Your task to perform on an android device: turn notification dots off Image 0: 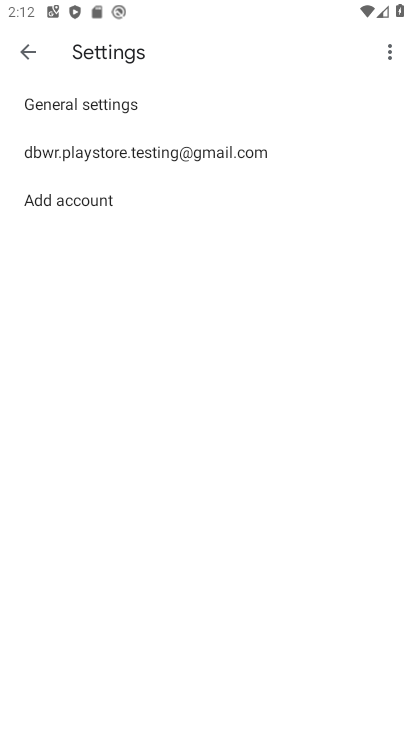
Step 0: press home button
Your task to perform on an android device: turn notification dots off Image 1: 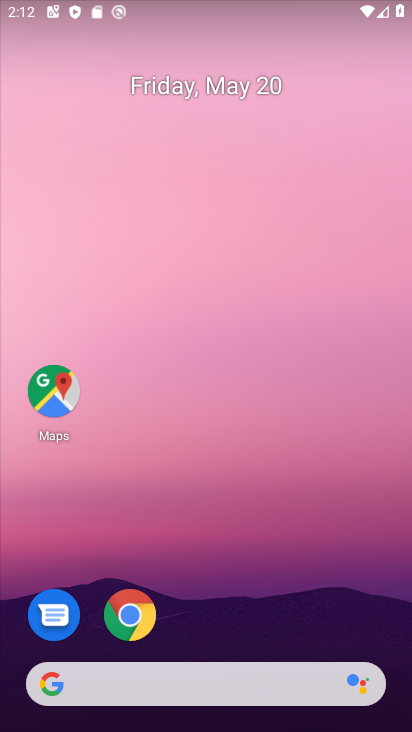
Step 1: drag from (263, 591) to (303, 283)
Your task to perform on an android device: turn notification dots off Image 2: 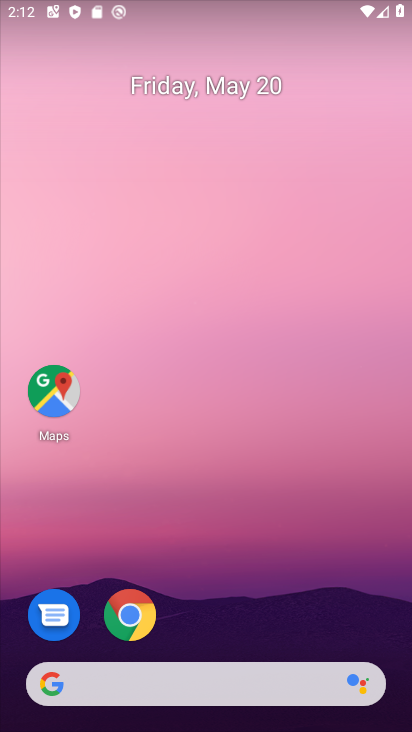
Step 2: drag from (260, 577) to (260, 222)
Your task to perform on an android device: turn notification dots off Image 3: 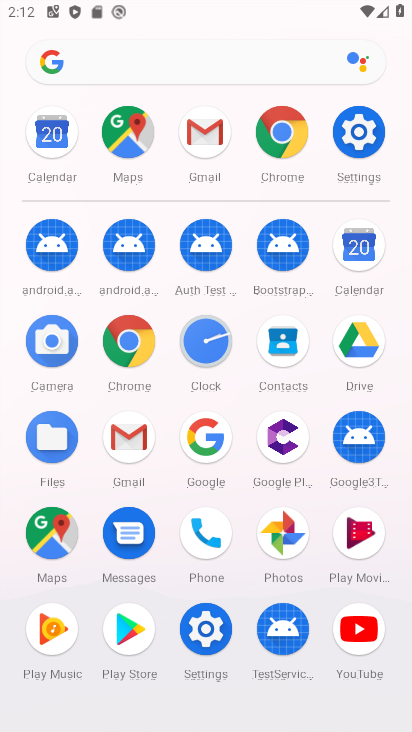
Step 3: click (327, 130)
Your task to perform on an android device: turn notification dots off Image 4: 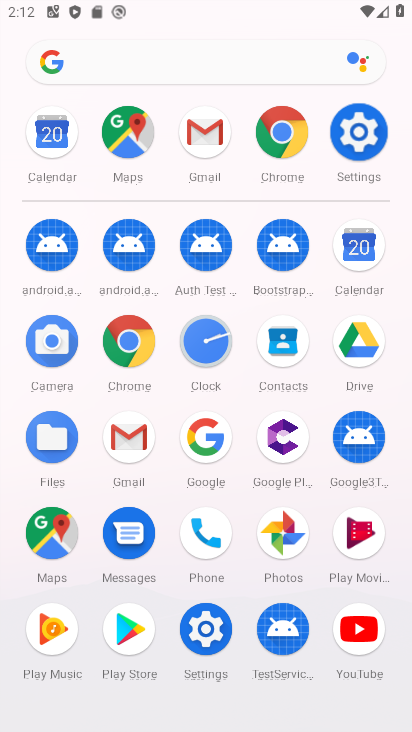
Step 4: click (368, 117)
Your task to perform on an android device: turn notification dots off Image 5: 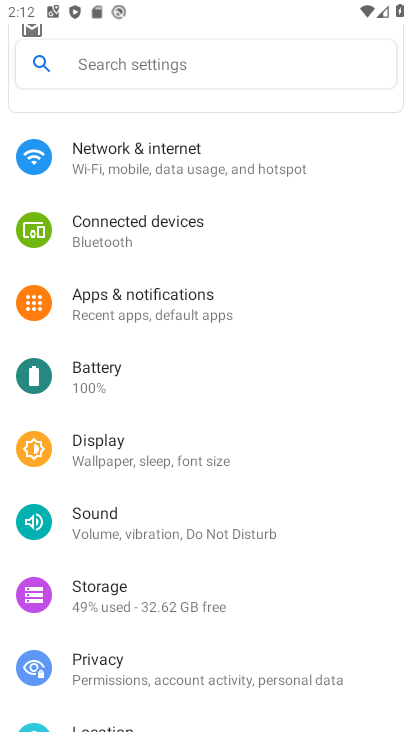
Step 5: click (227, 52)
Your task to perform on an android device: turn notification dots off Image 6: 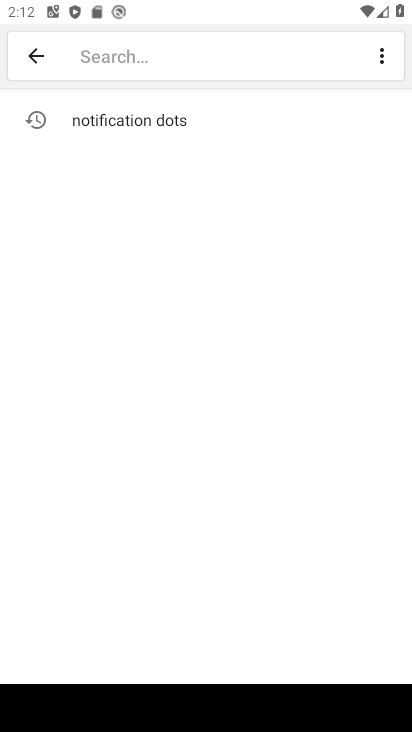
Step 6: click (205, 114)
Your task to perform on an android device: turn notification dots off Image 7: 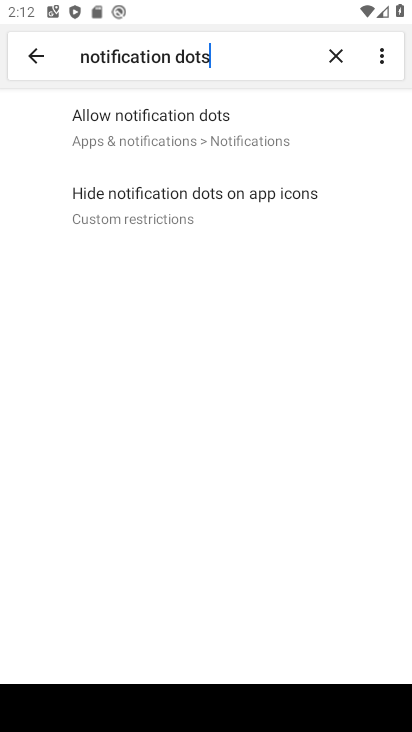
Step 7: click (223, 117)
Your task to perform on an android device: turn notification dots off Image 8: 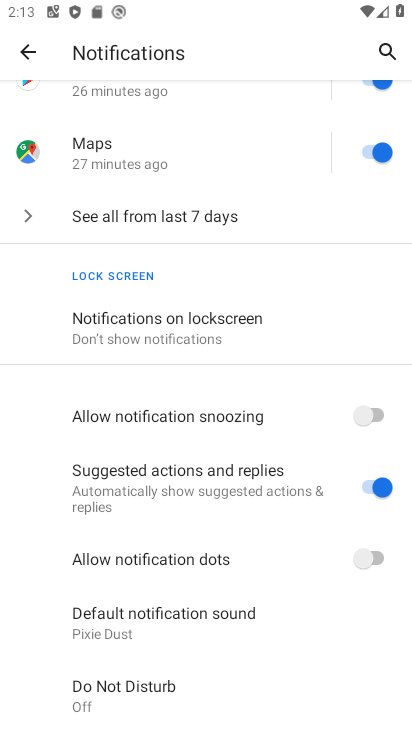
Step 8: task complete